Your task to perform on an android device: manage bookmarks in the chrome app Image 0: 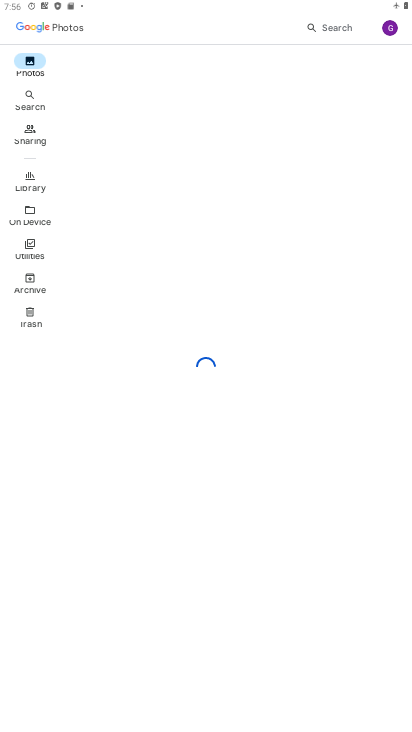
Step 0: press home button
Your task to perform on an android device: manage bookmarks in the chrome app Image 1: 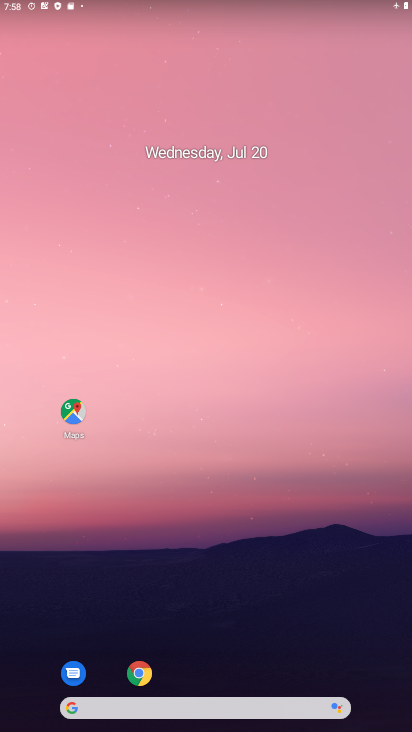
Step 1: drag from (391, 647) to (232, 51)
Your task to perform on an android device: manage bookmarks in the chrome app Image 2: 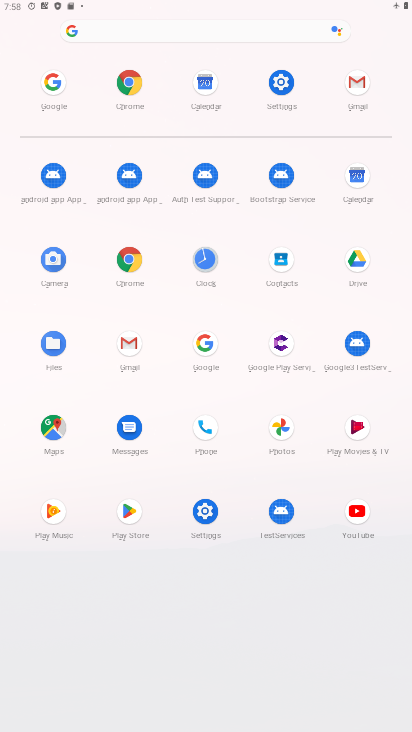
Step 2: click (126, 256)
Your task to perform on an android device: manage bookmarks in the chrome app Image 3: 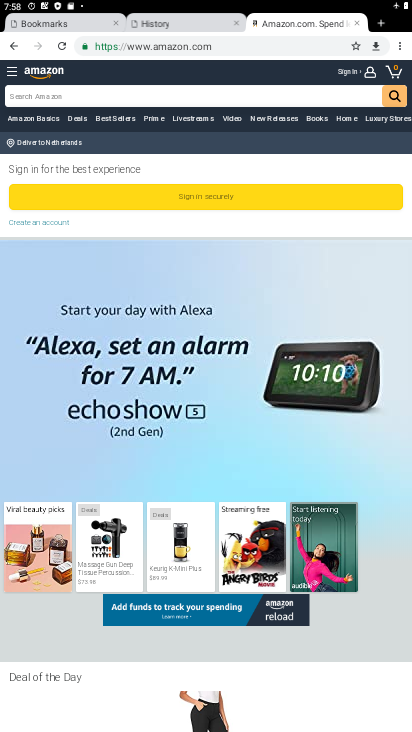
Step 3: press back button
Your task to perform on an android device: manage bookmarks in the chrome app Image 4: 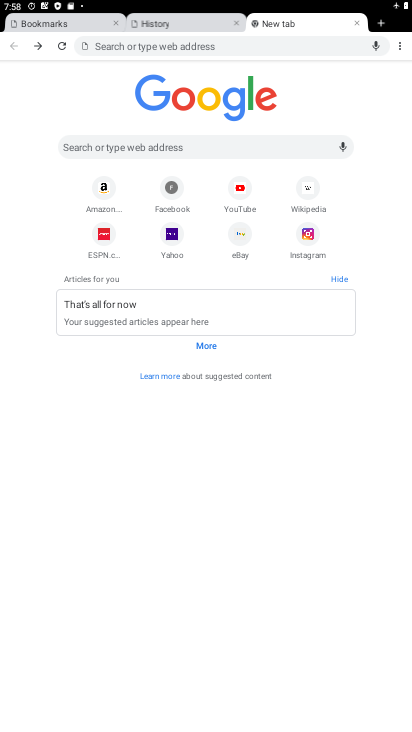
Step 4: click (399, 43)
Your task to perform on an android device: manage bookmarks in the chrome app Image 5: 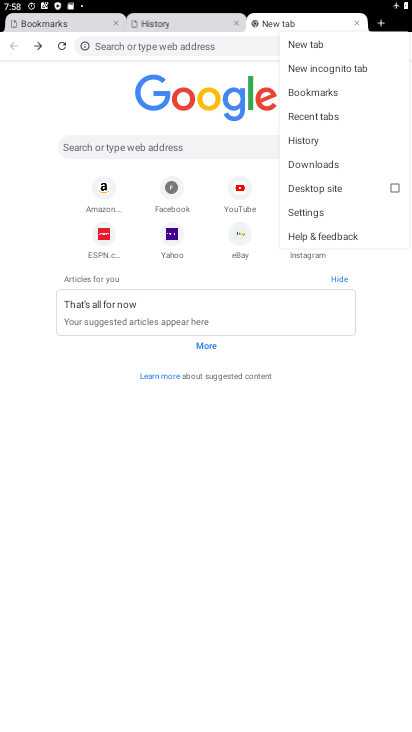
Step 5: click (304, 93)
Your task to perform on an android device: manage bookmarks in the chrome app Image 6: 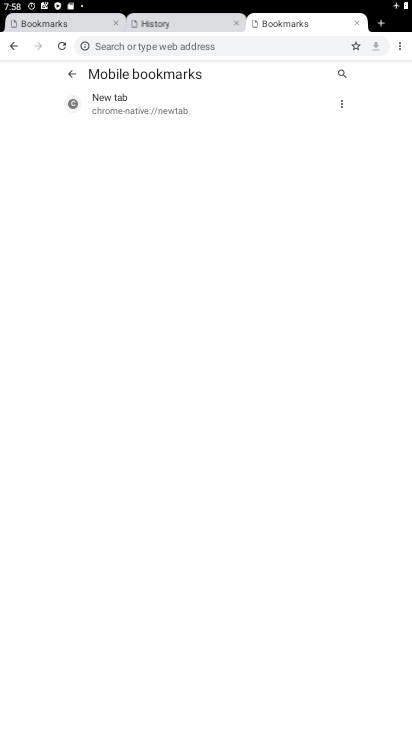
Step 6: task complete